Your task to perform on an android device: uninstall "PlayWell" Image 0: 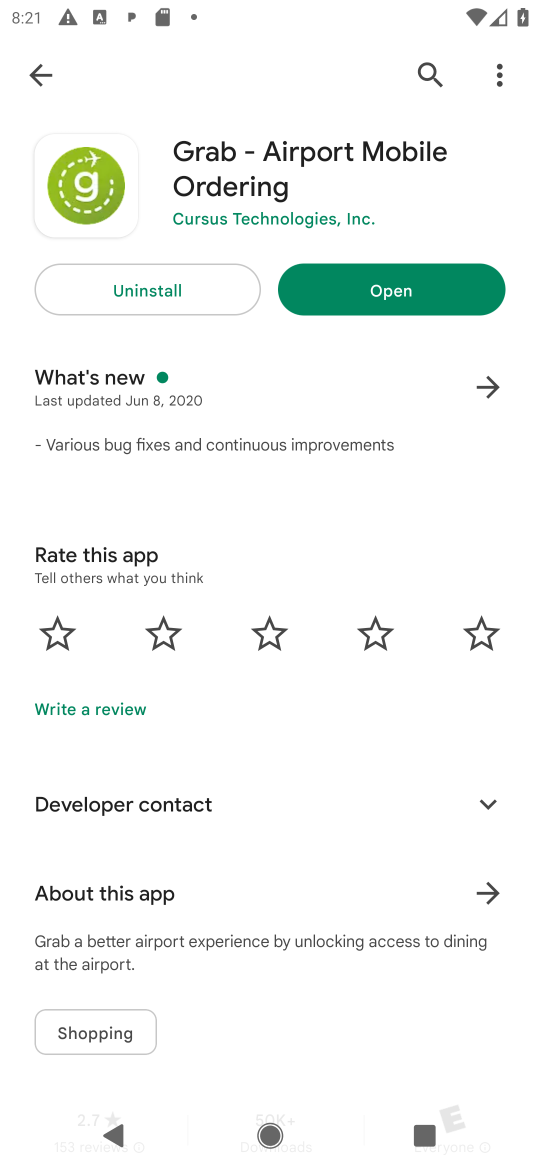
Step 0: press home button
Your task to perform on an android device: uninstall "PlayWell" Image 1: 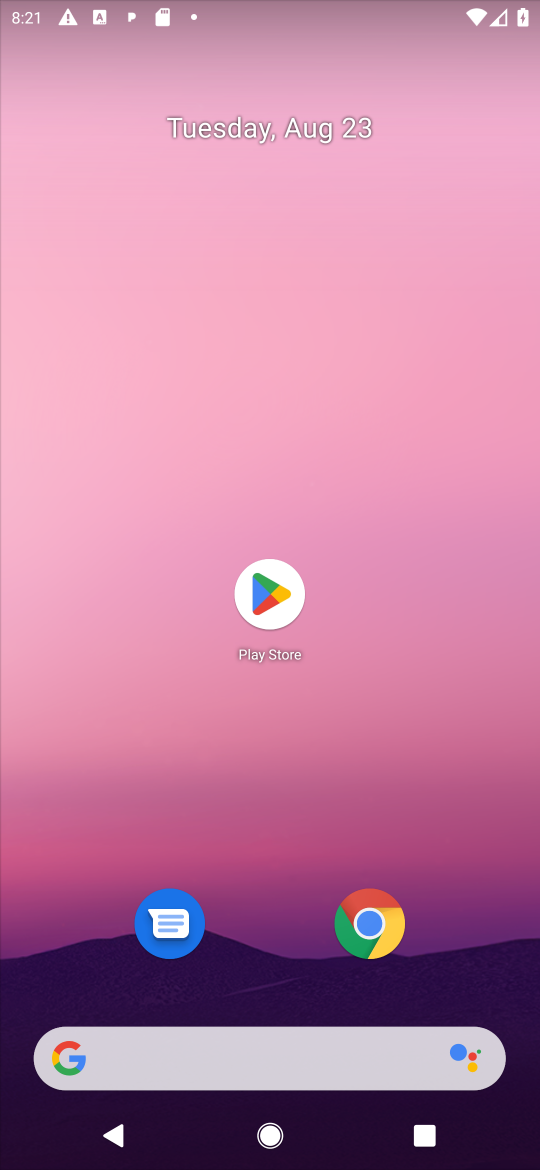
Step 1: click (262, 593)
Your task to perform on an android device: uninstall "PlayWell" Image 2: 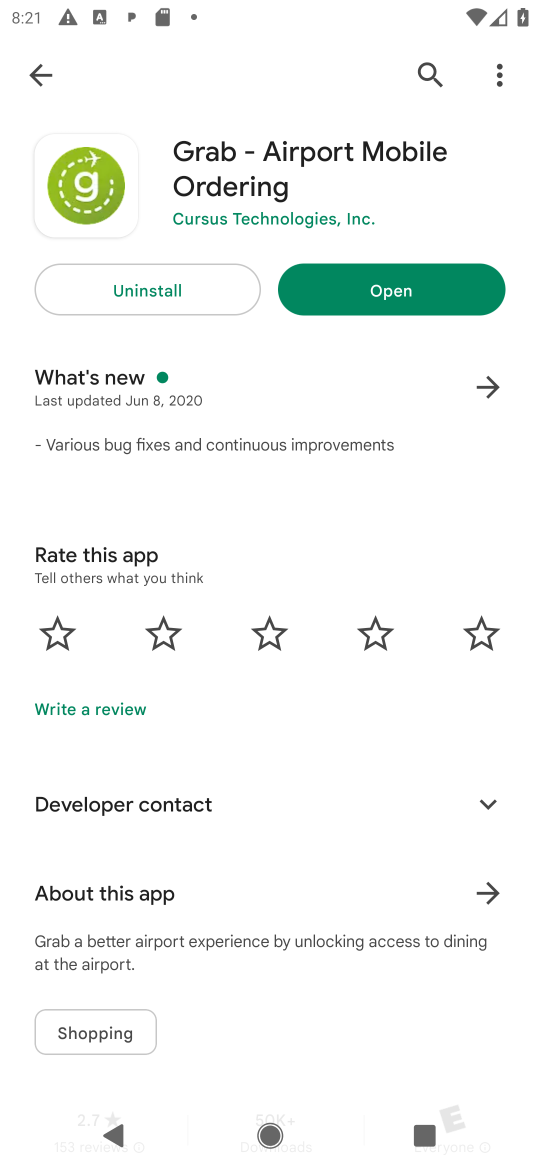
Step 2: click (421, 71)
Your task to perform on an android device: uninstall "PlayWell" Image 3: 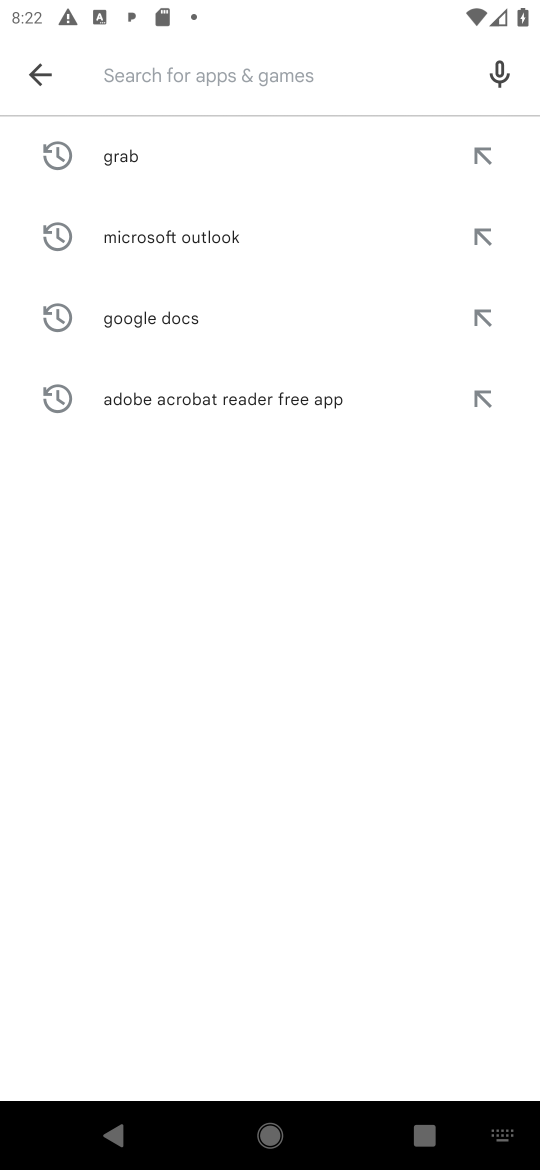
Step 3: type "PlayWell"
Your task to perform on an android device: uninstall "PlayWell" Image 4: 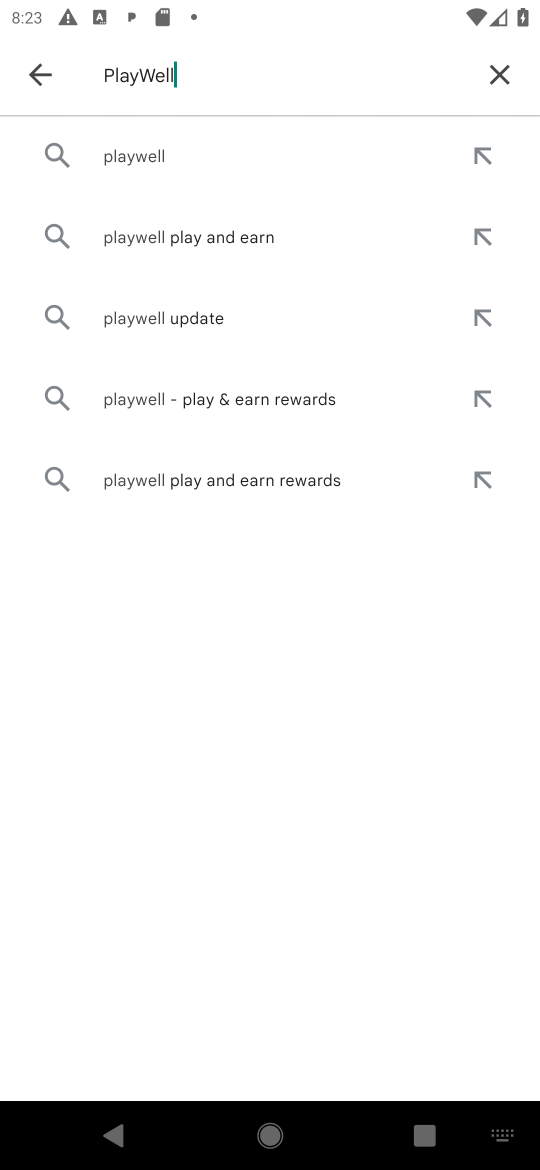
Step 4: click (153, 150)
Your task to perform on an android device: uninstall "PlayWell" Image 5: 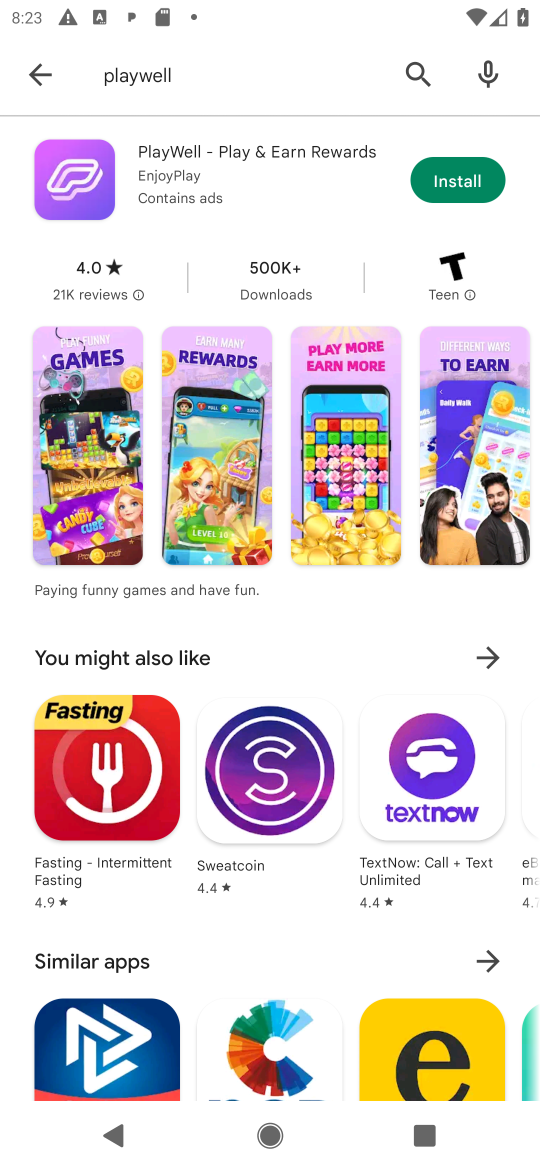
Step 5: task complete